Your task to perform on an android device: Open settings on Google Maps Image 0: 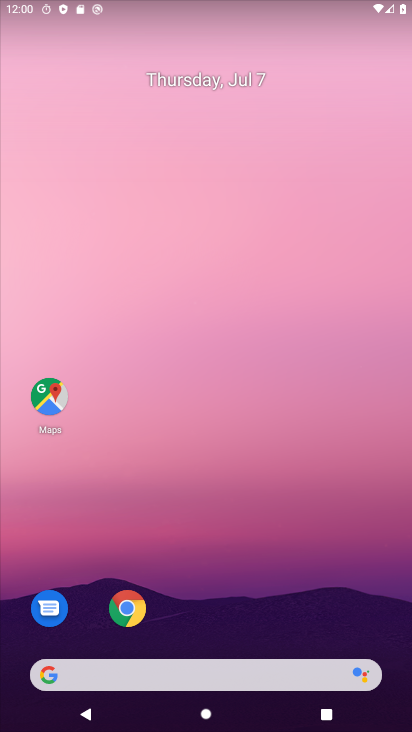
Step 0: drag from (236, 680) to (286, 38)
Your task to perform on an android device: Open settings on Google Maps Image 1: 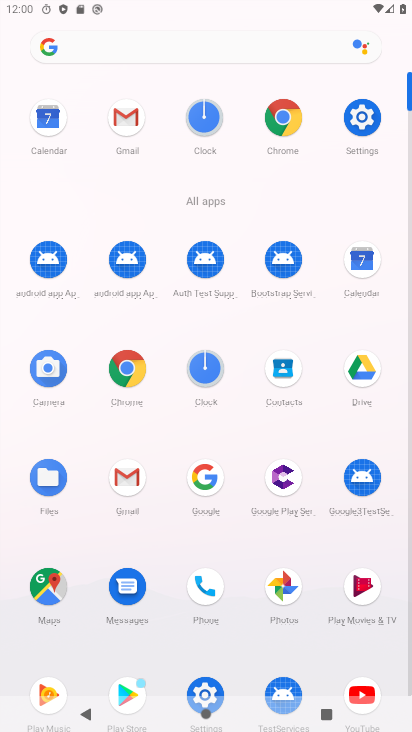
Step 1: click (49, 593)
Your task to perform on an android device: Open settings on Google Maps Image 2: 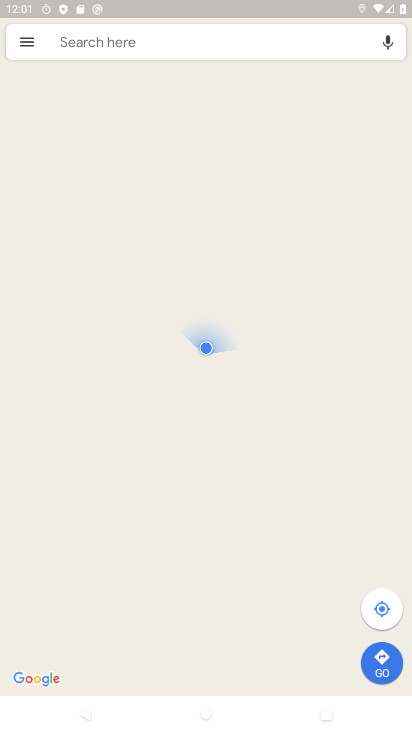
Step 2: click (24, 44)
Your task to perform on an android device: Open settings on Google Maps Image 3: 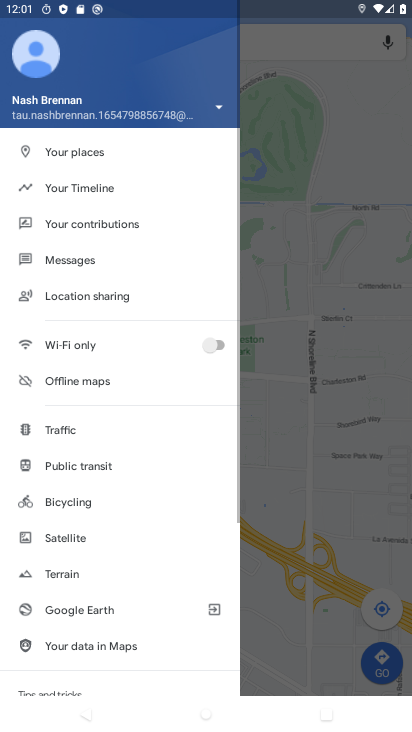
Step 3: click (27, 46)
Your task to perform on an android device: Open settings on Google Maps Image 4: 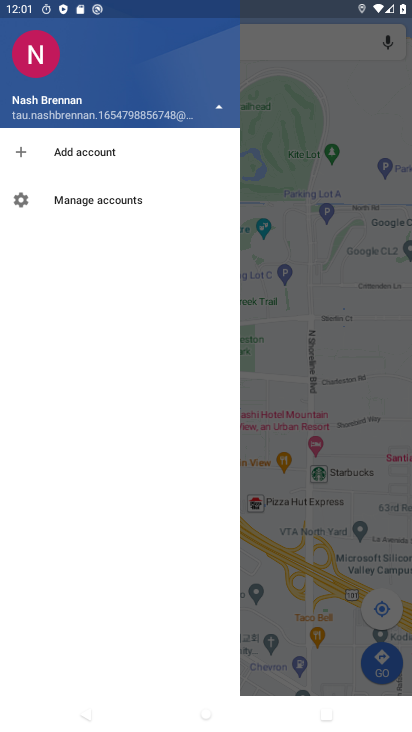
Step 4: press back button
Your task to perform on an android device: Open settings on Google Maps Image 5: 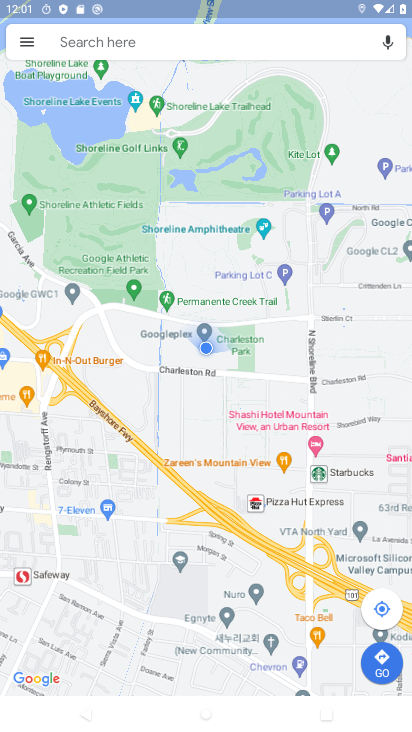
Step 5: click (26, 35)
Your task to perform on an android device: Open settings on Google Maps Image 6: 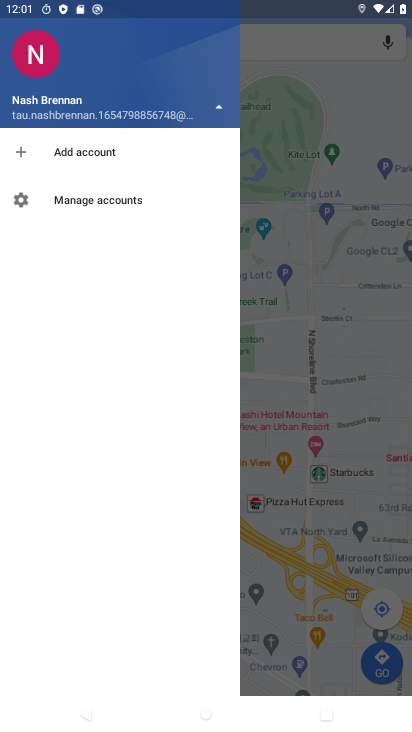
Step 6: click (216, 114)
Your task to perform on an android device: Open settings on Google Maps Image 7: 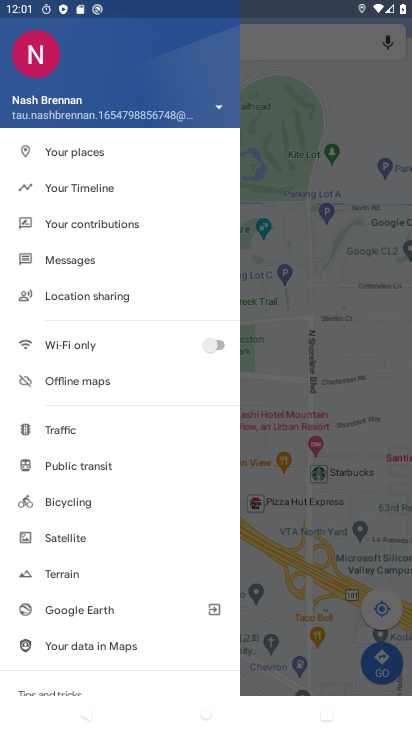
Step 7: click (114, 200)
Your task to perform on an android device: Open settings on Google Maps Image 8: 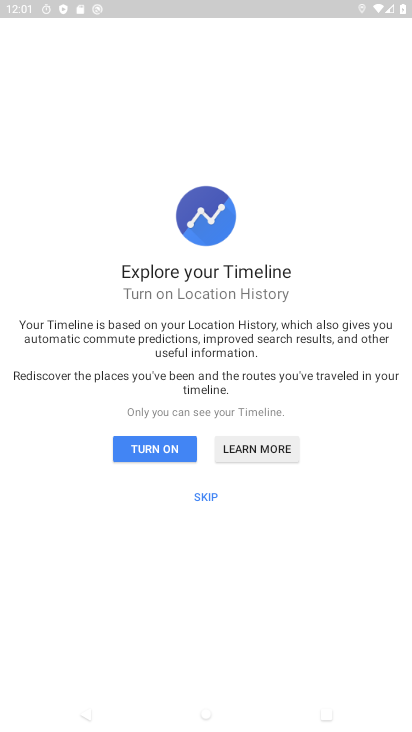
Step 8: click (210, 493)
Your task to perform on an android device: Open settings on Google Maps Image 9: 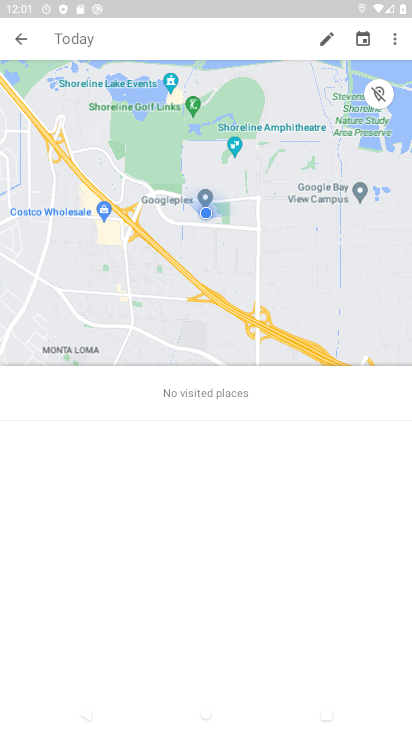
Step 9: click (398, 34)
Your task to perform on an android device: Open settings on Google Maps Image 10: 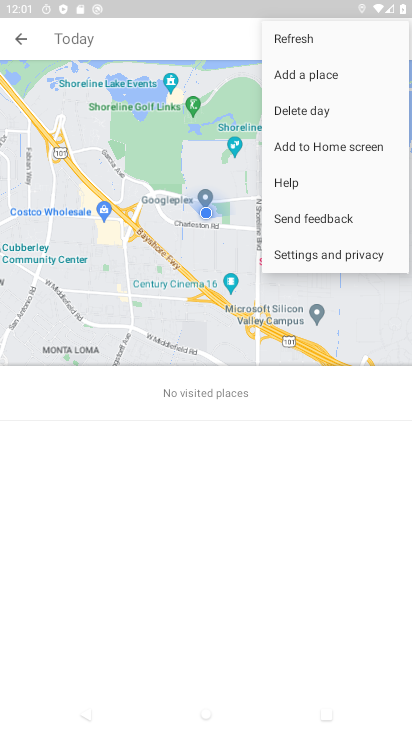
Step 10: click (312, 255)
Your task to perform on an android device: Open settings on Google Maps Image 11: 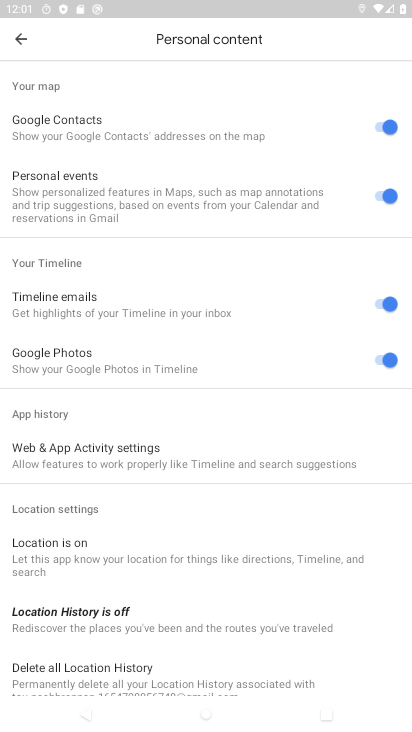
Step 11: task complete